Your task to perform on an android device: Open battery settings Image 0: 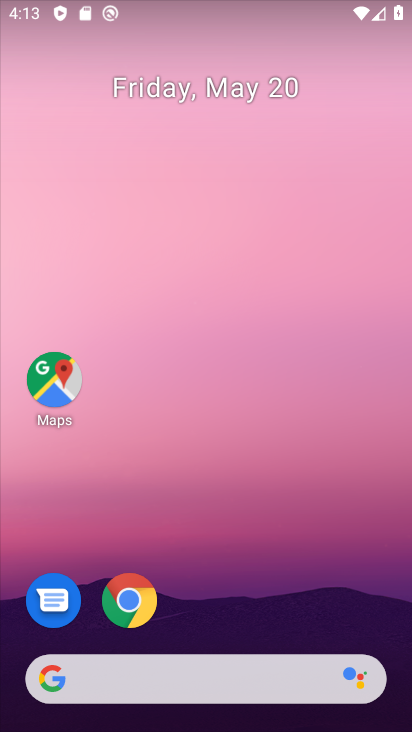
Step 0: drag from (304, 581) to (309, 41)
Your task to perform on an android device: Open battery settings Image 1: 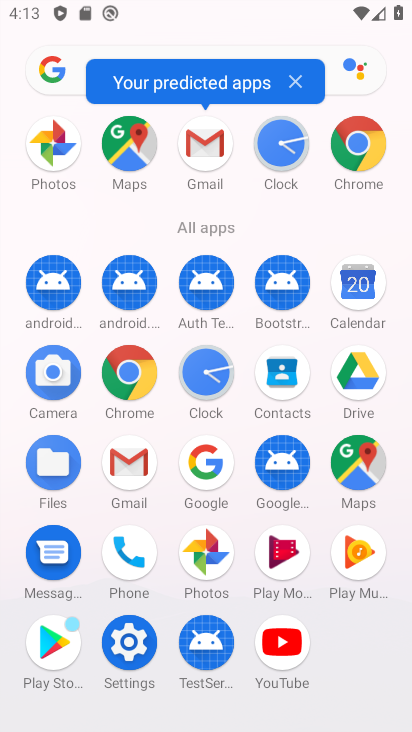
Step 1: click (121, 628)
Your task to perform on an android device: Open battery settings Image 2: 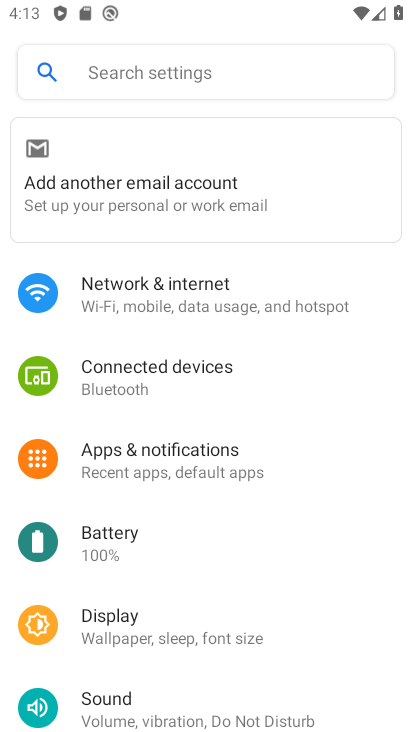
Step 2: click (192, 536)
Your task to perform on an android device: Open battery settings Image 3: 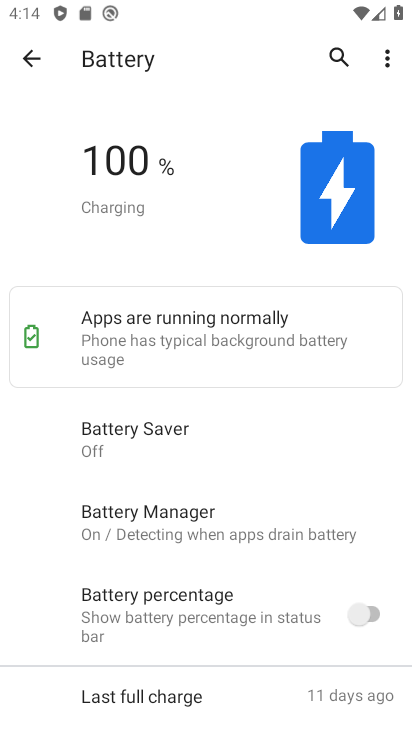
Step 3: task complete